Your task to perform on an android device: add a contact in the contacts app Image 0: 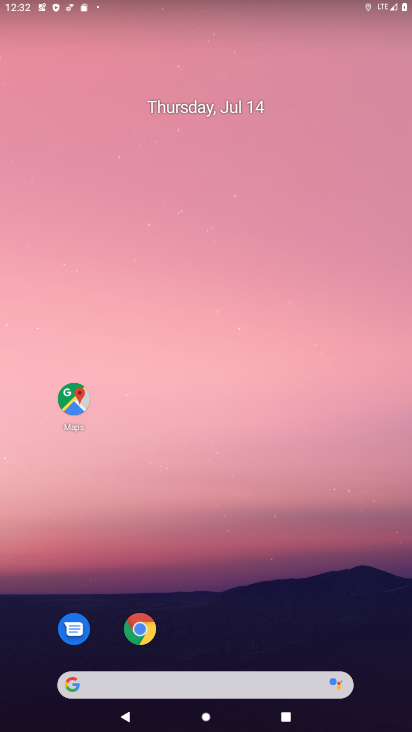
Step 0: drag from (308, 577) to (232, 10)
Your task to perform on an android device: add a contact in the contacts app Image 1: 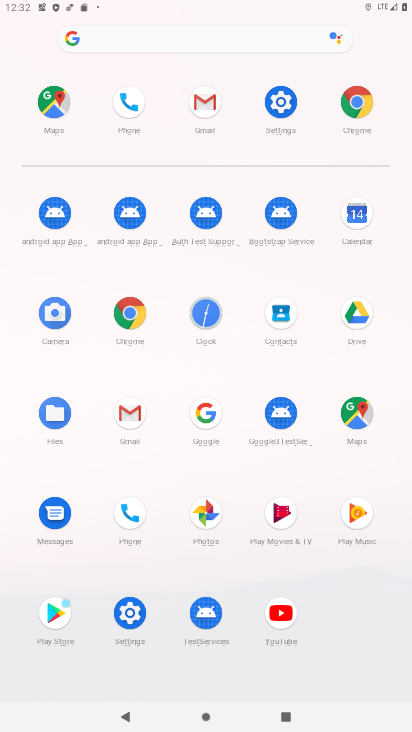
Step 1: click (121, 99)
Your task to perform on an android device: add a contact in the contacts app Image 2: 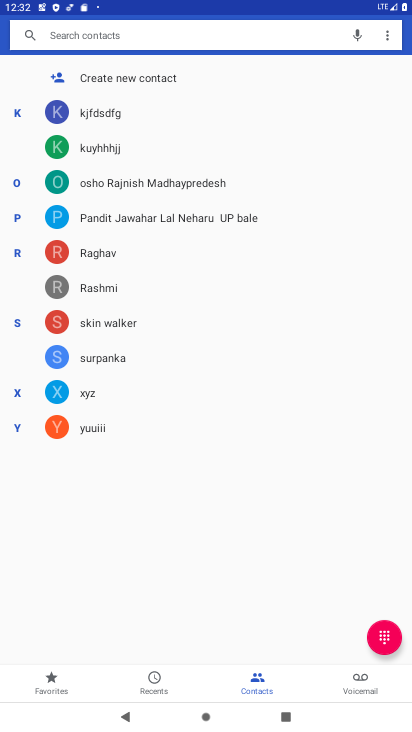
Step 2: click (161, 77)
Your task to perform on an android device: add a contact in the contacts app Image 3: 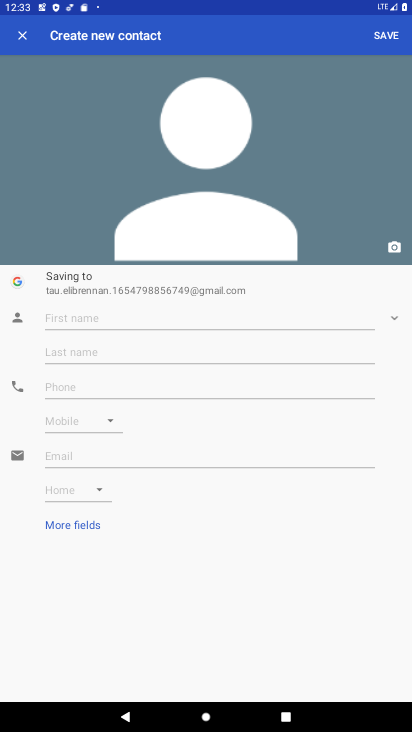
Step 3: click (82, 311)
Your task to perform on an android device: add a contact in the contacts app Image 4: 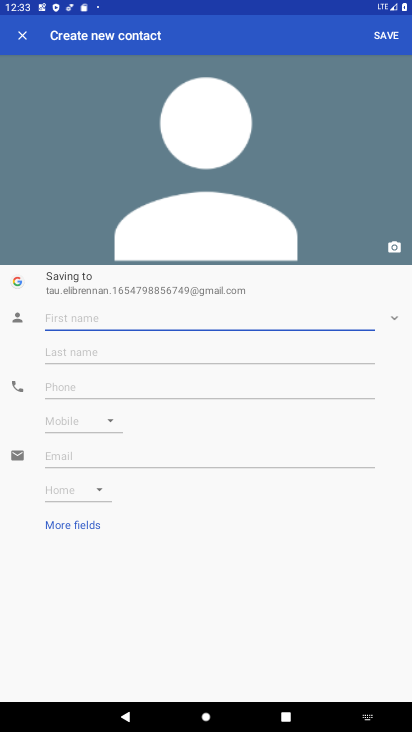
Step 4: type "tyyuuu"
Your task to perform on an android device: add a contact in the contacts app Image 5: 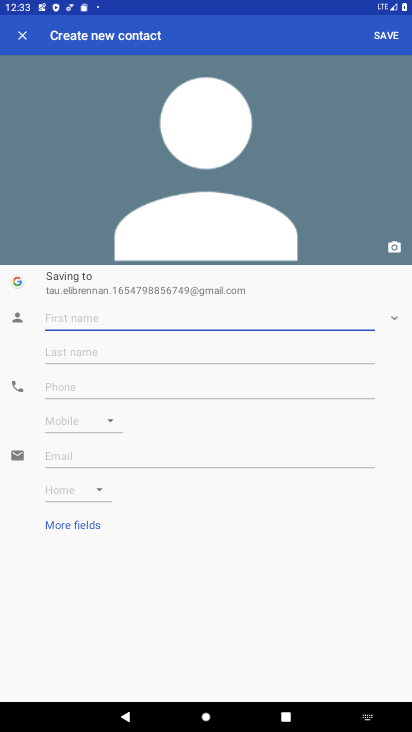
Step 5: click (123, 384)
Your task to perform on an android device: add a contact in the contacts app Image 6: 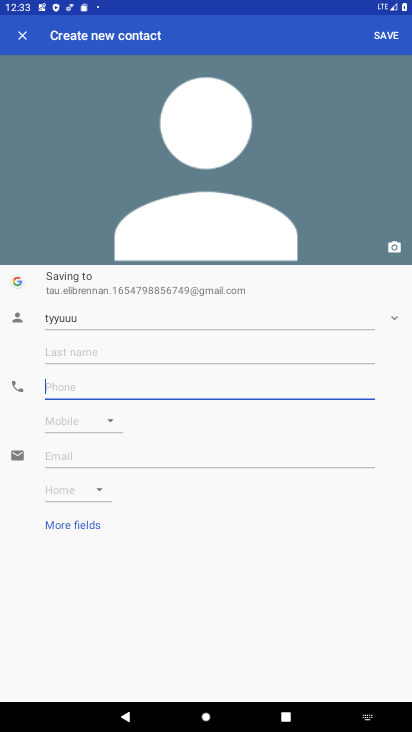
Step 6: type "557766554"
Your task to perform on an android device: add a contact in the contacts app Image 7: 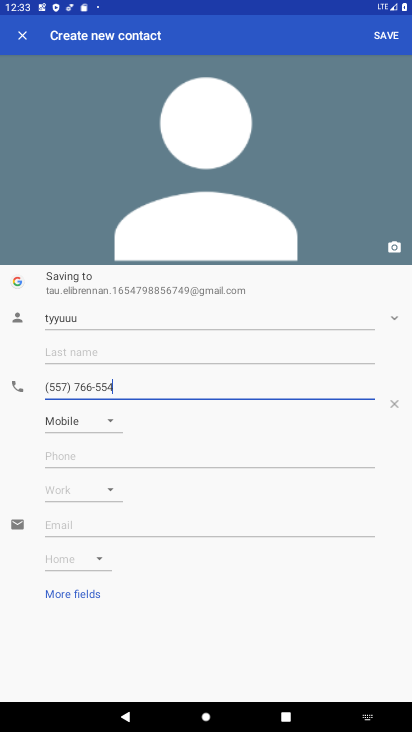
Step 7: click (390, 34)
Your task to perform on an android device: add a contact in the contacts app Image 8: 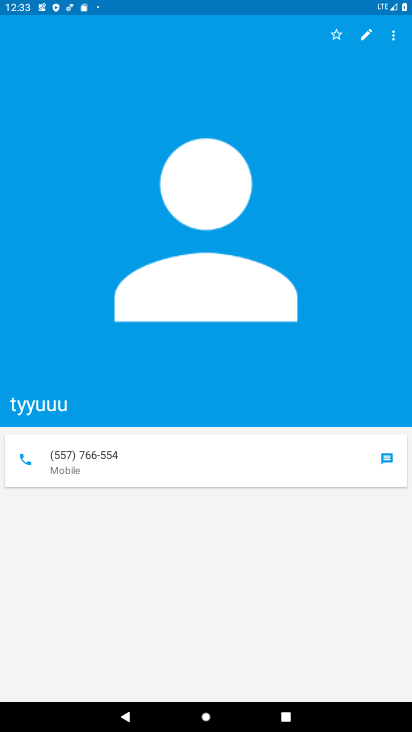
Step 8: task complete